Your task to perform on an android device: change the clock display to analog Image 0: 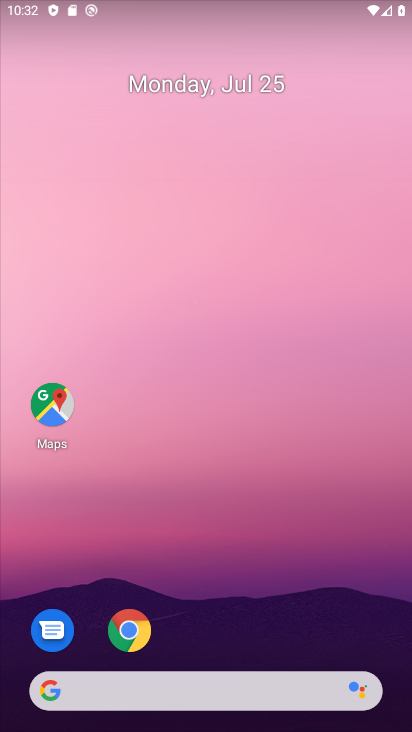
Step 0: drag from (185, 513) to (200, 23)
Your task to perform on an android device: change the clock display to analog Image 1: 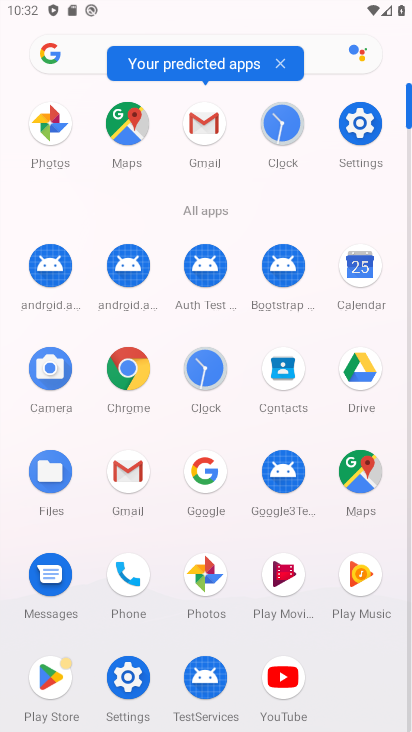
Step 1: click (206, 359)
Your task to perform on an android device: change the clock display to analog Image 2: 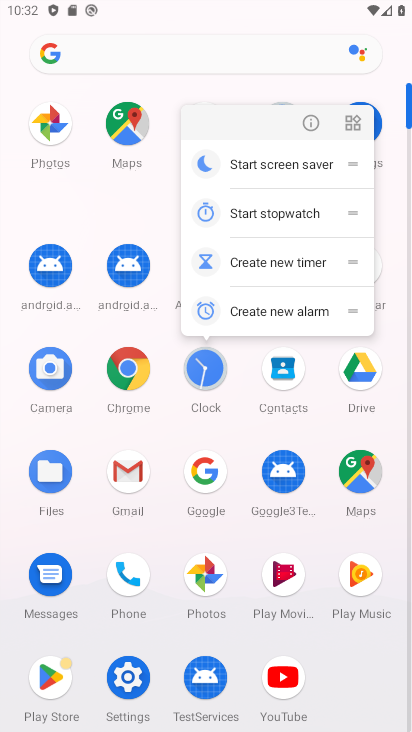
Step 2: click (311, 121)
Your task to perform on an android device: change the clock display to analog Image 3: 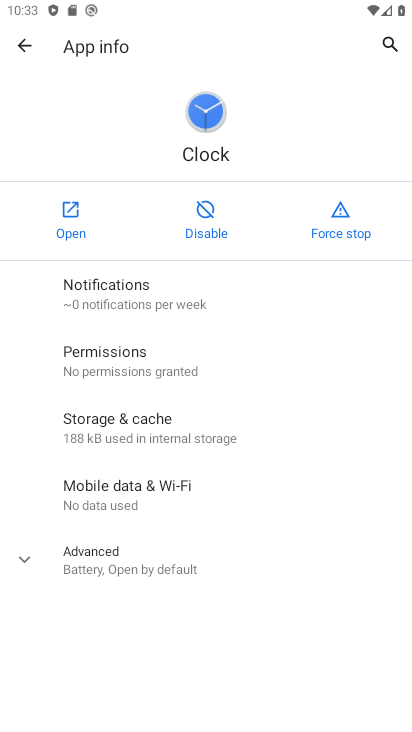
Step 3: click (69, 198)
Your task to perform on an android device: change the clock display to analog Image 4: 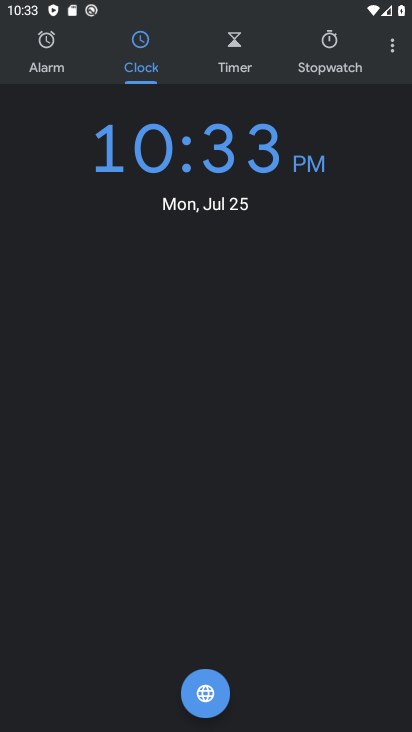
Step 4: drag from (388, 45) to (293, 92)
Your task to perform on an android device: change the clock display to analog Image 5: 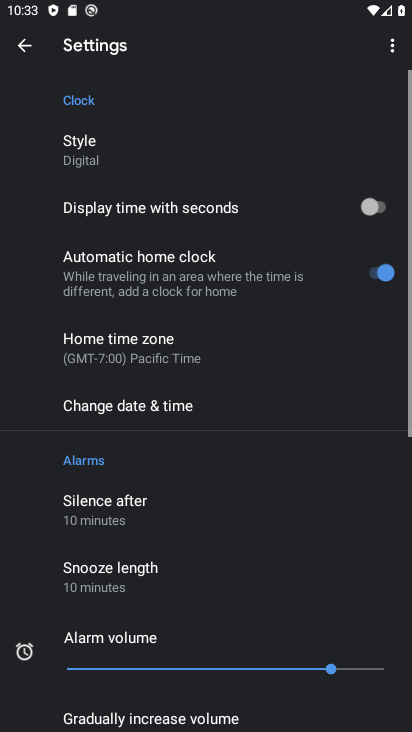
Step 5: click (97, 140)
Your task to perform on an android device: change the clock display to analog Image 6: 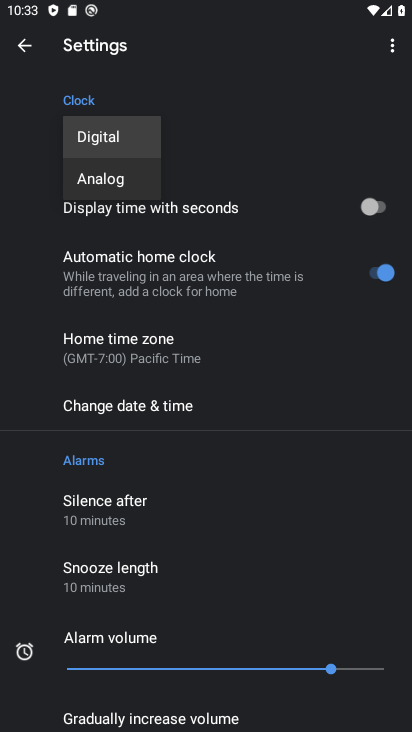
Step 6: click (99, 176)
Your task to perform on an android device: change the clock display to analog Image 7: 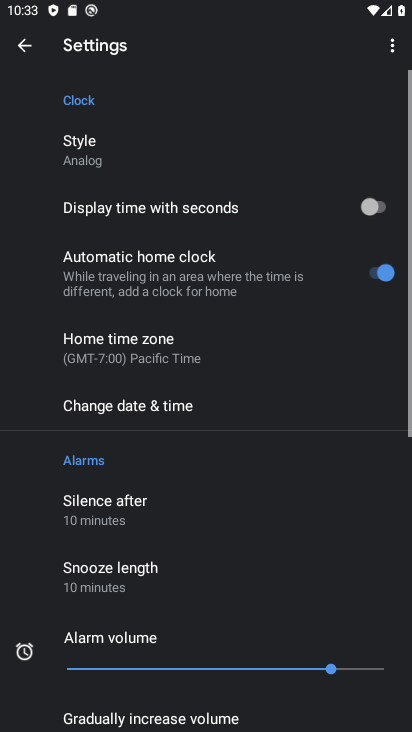
Step 7: task complete